Your task to perform on an android device: Check the news Image 0: 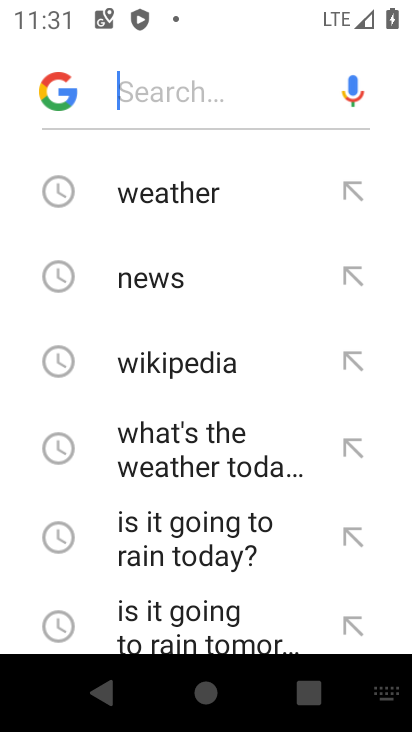
Step 0: press back button
Your task to perform on an android device: Check the news Image 1: 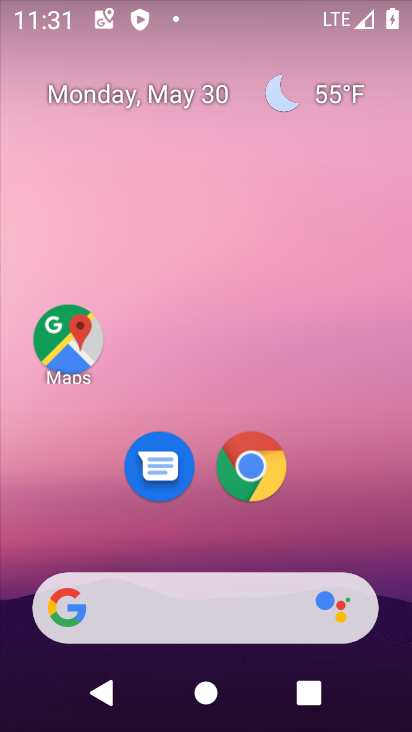
Step 1: task complete